Your task to perform on an android device: Show me recent news Image 0: 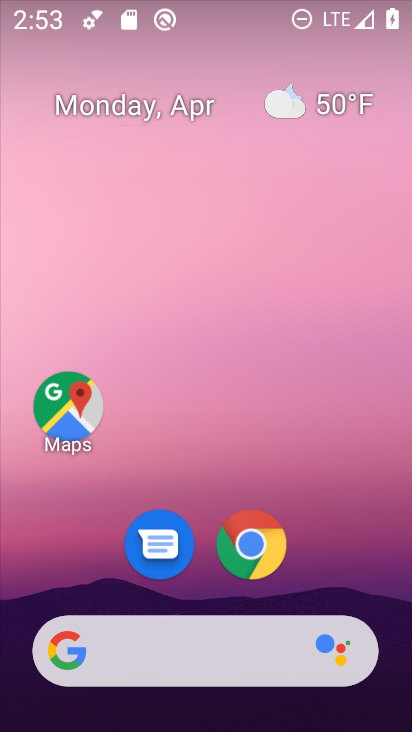
Step 0: drag from (315, 575) to (165, 33)
Your task to perform on an android device: Show me recent news Image 1: 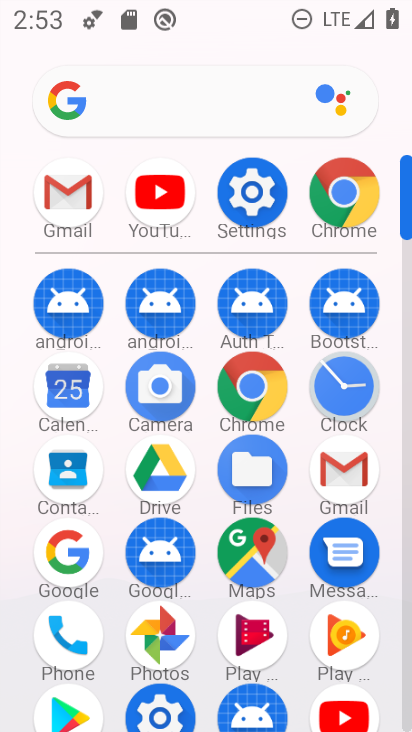
Step 1: click (75, 568)
Your task to perform on an android device: Show me recent news Image 2: 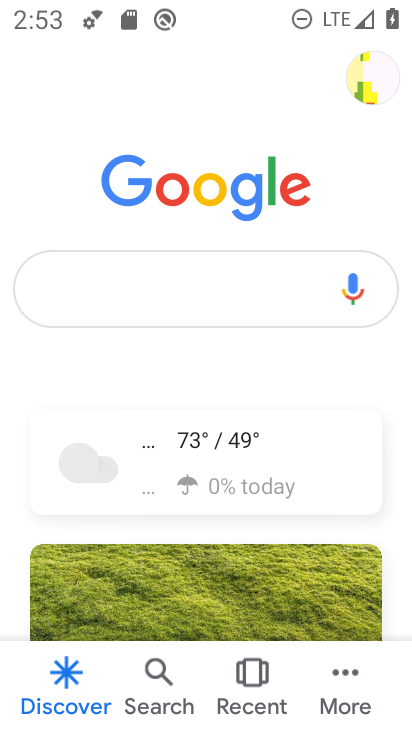
Step 2: task complete